Your task to perform on an android device: What's on my calendar tomorrow? Image 0: 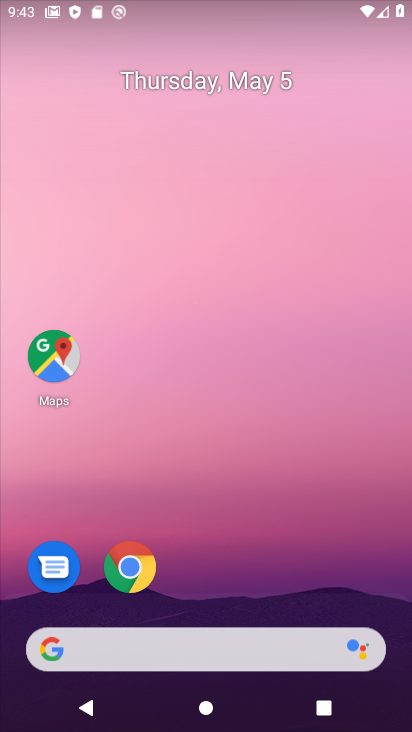
Step 0: drag from (271, 593) to (319, 65)
Your task to perform on an android device: What's on my calendar tomorrow? Image 1: 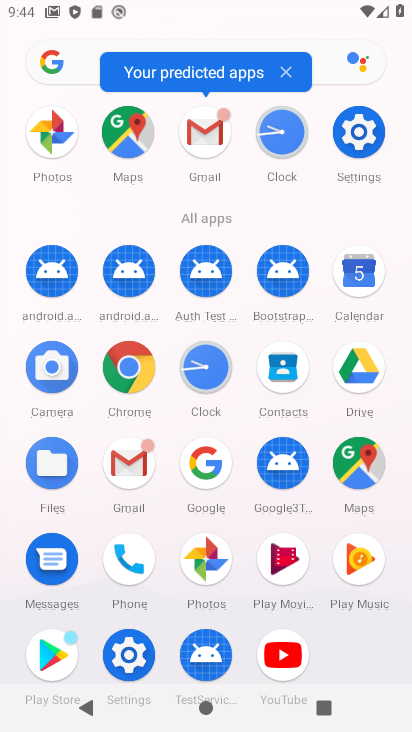
Step 1: click (361, 291)
Your task to perform on an android device: What's on my calendar tomorrow? Image 2: 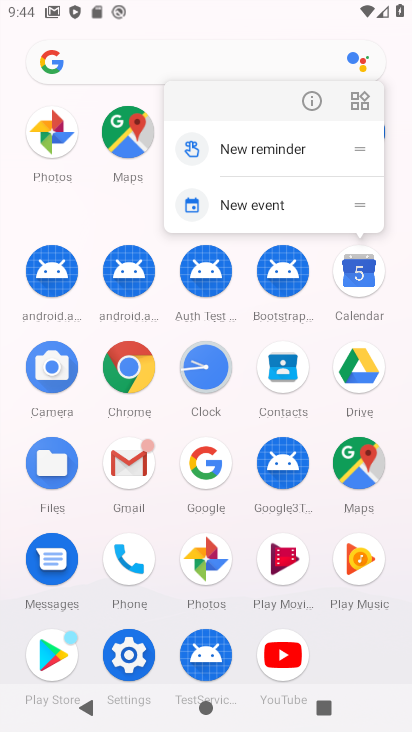
Step 2: click (366, 277)
Your task to perform on an android device: What's on my calendar tomorrow? Image 3: 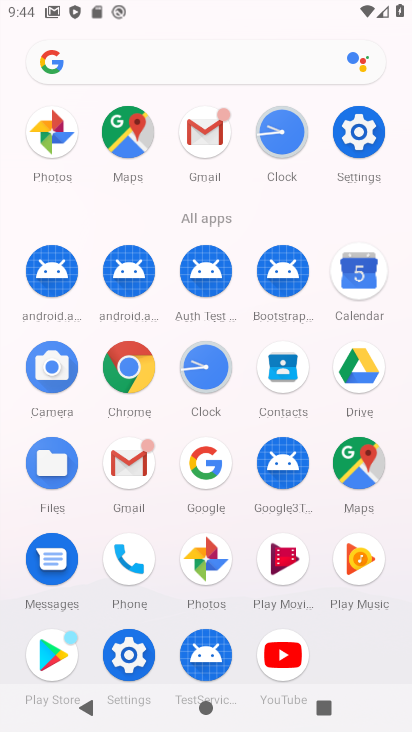
Step 3: click (366, 277)
Your task to perform on an android device: What's on my calendar tomorrow? Image 4: 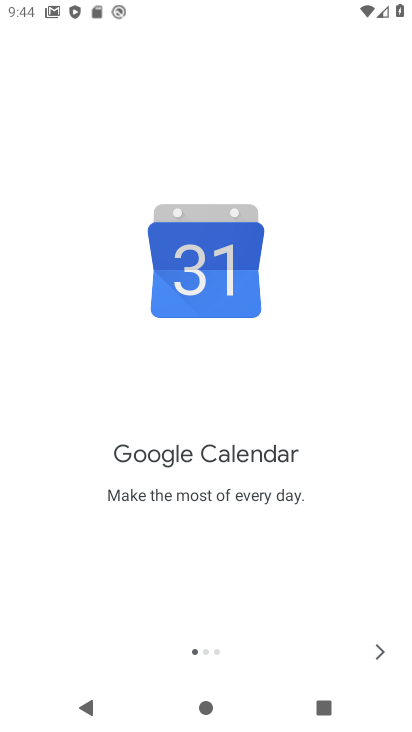
Step 4: click (379, 653)
Your task to perform on an android device: What's on my calendar tomorrow? Image 5: 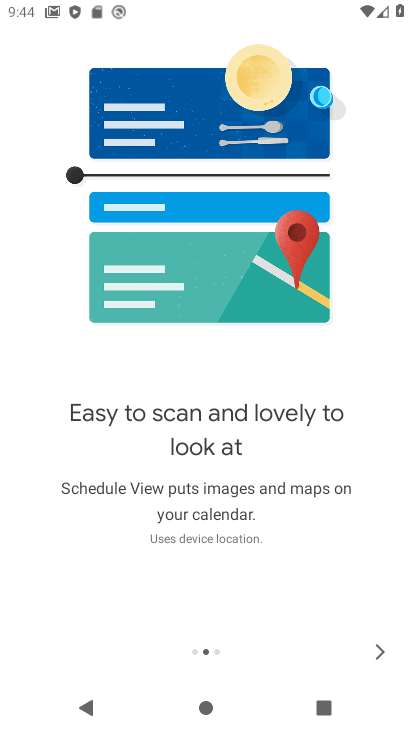
Step 5: click (379, 652)
Your task to perform on an android device: What's on my calendar tomorrow? Image 6: 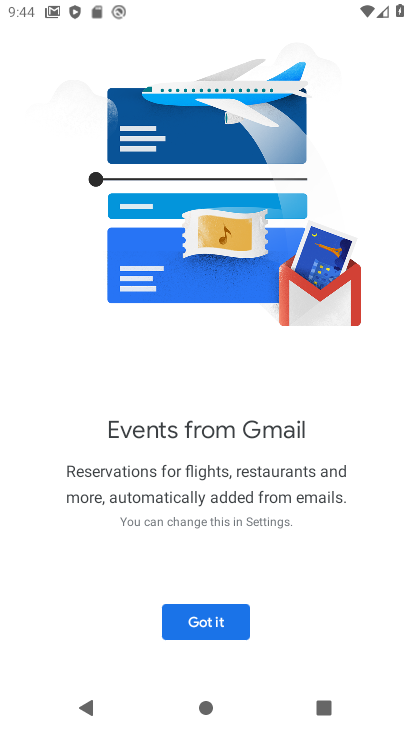
Step 6: click (213, 619)
Your task to perform on an android device: What's on my calendar tomorrow? Image 7: 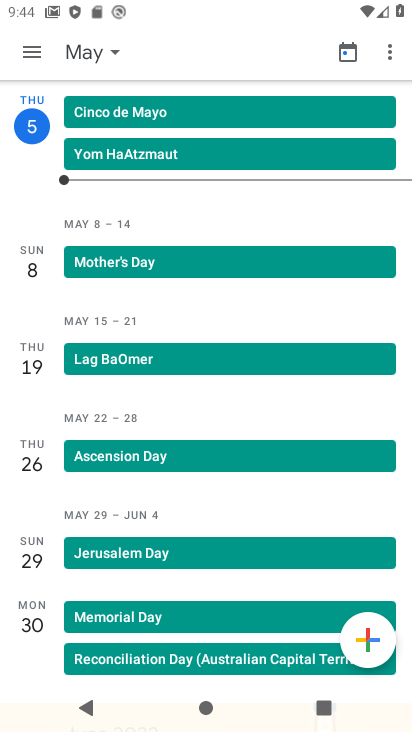
Step 7: click (93, 59)
Your task to perform on an android device: What's on my calendar tomorrow? Image 8: 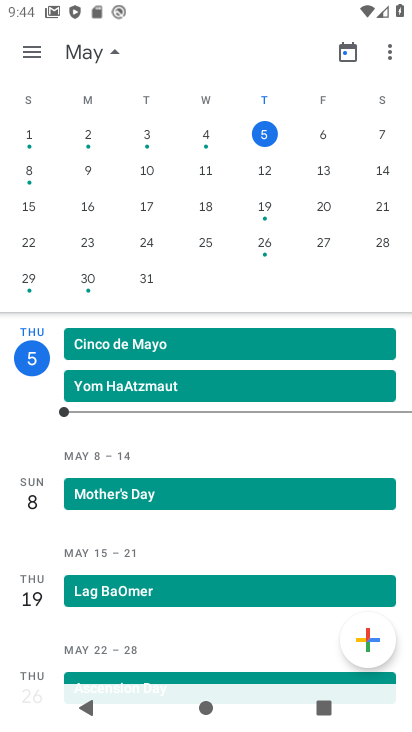
Step 8: click (320, 134)
Your task to perform on an android device: What's on my calendar tomorrow? Image 9: 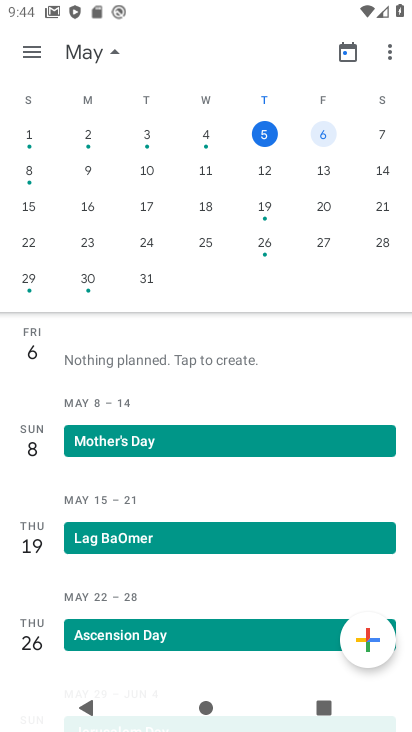
Step 9: click (320, 134)
Your task to perform on an android device: What's on my calendar tomorrow? Image 10: 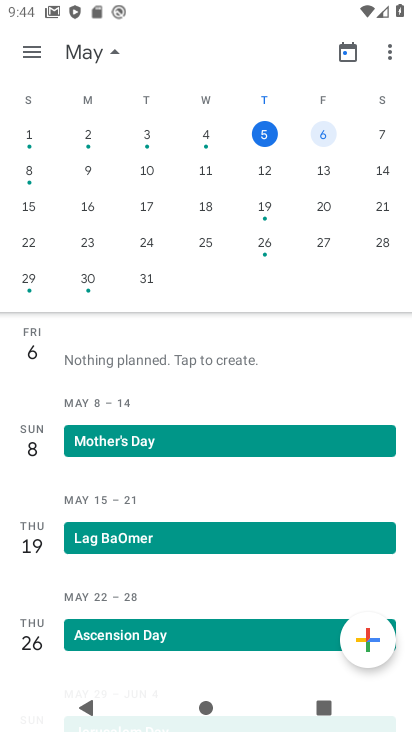
Step 10: click (320, 134)
Your task to perform on an android device: What's on my calendar tomorrow? Image 11: 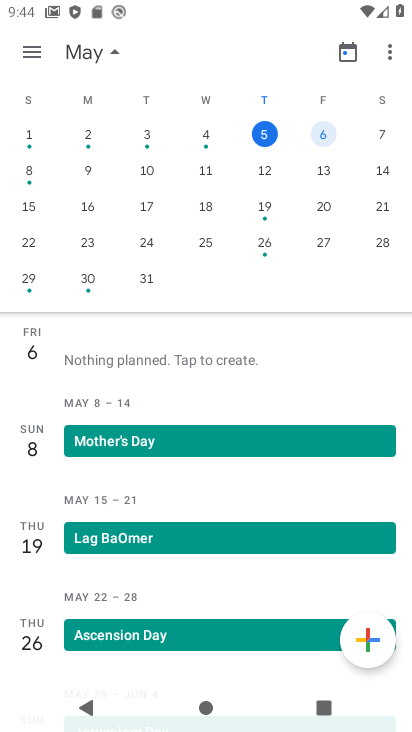
Step 11: click (320, 134)
Your task to perform on an android device: What's on my calendar tomorrow? Image 12: 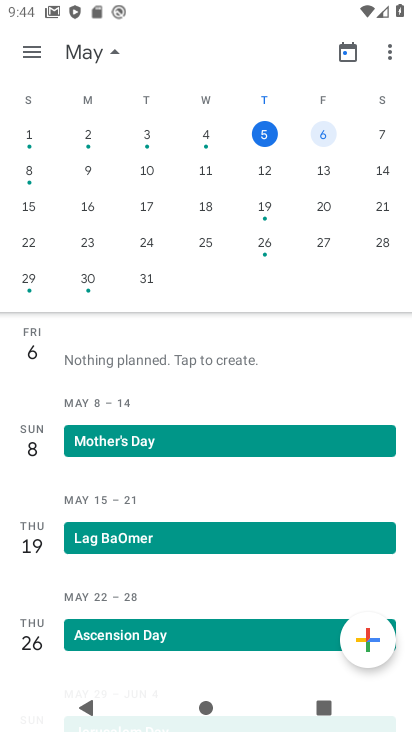
Step 12: click (320, 134)
Your task to perform on an android device: What's on my calendar tomorrow? Image 13: 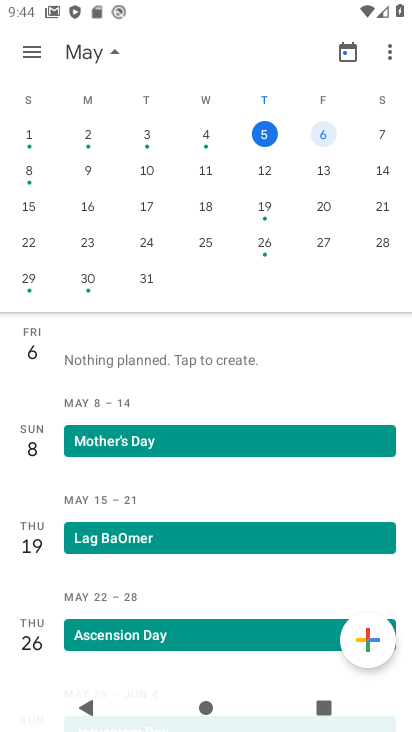
Step 13: click (327, 131)
Your task to perform on an android device: What's on my calendar tomorrow? Image 14: 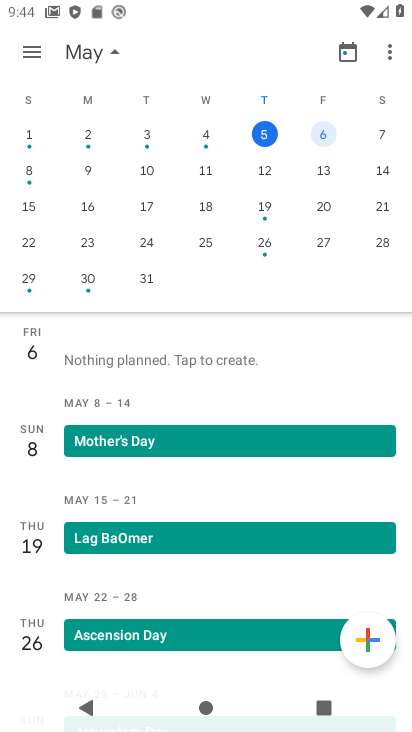
Step 14: click (328, 131)
Your task to perform on an android device: What's on my calendar tomorrow? Image 15: 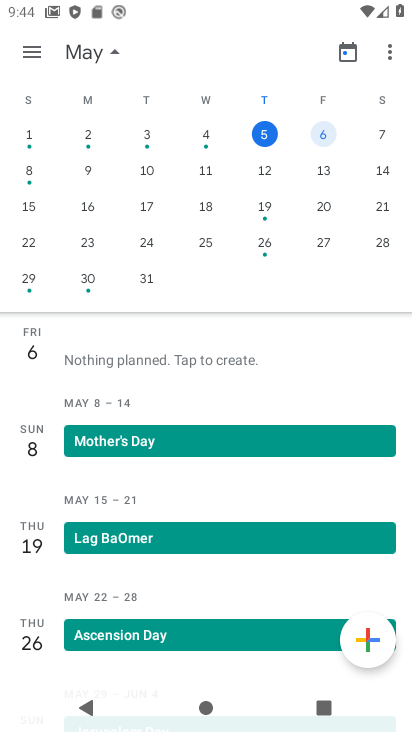
Step 15: click (328, 131)
Your task to perform on an android device: What's on my calendar tomorrow? Image 16: 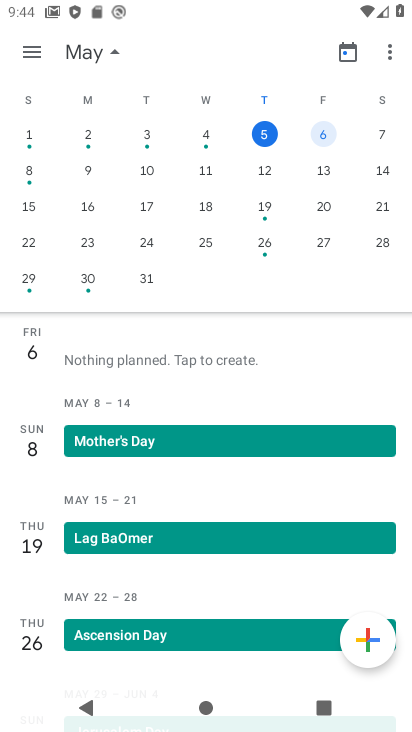
Step 16: click (315, 138)
Your task to perform on an android device: What's on my calendar tomorrow? Image 17: 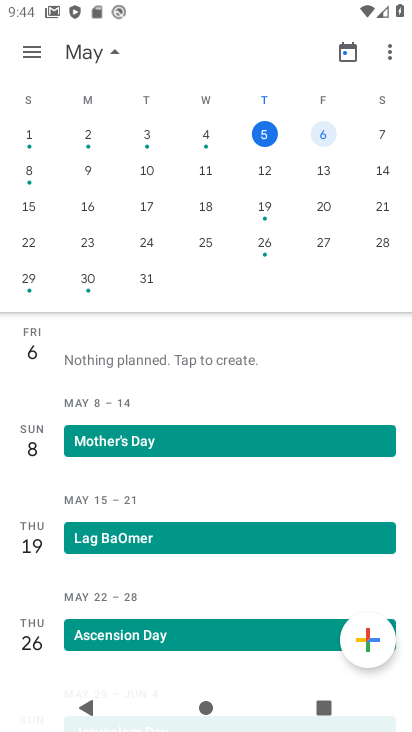
Step 17: click (315, 138)
Your task to perform on an android device: What's on my calendar tomorrow? Image 18: 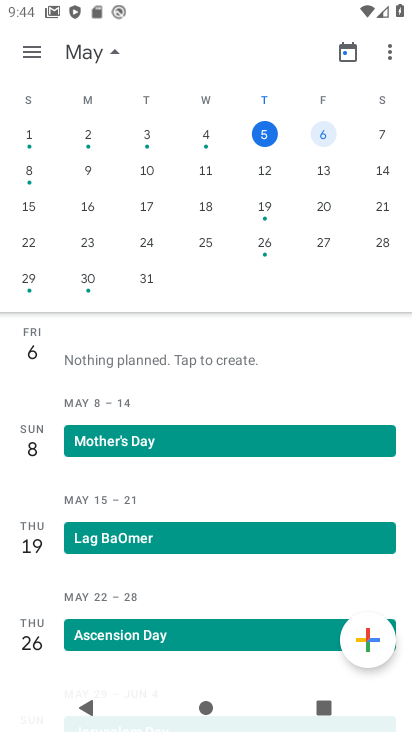
Step 18: click (318, 140)
Your task to perform on an android device: What's on my calendar tomorrow? Image 19: 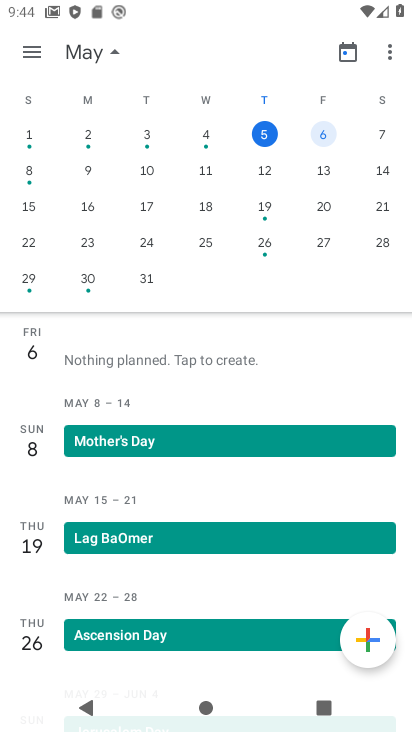
Step 19: click (318, 140)
Your task to perform on an android device: What's on my calendar tomorrow? Image 20: 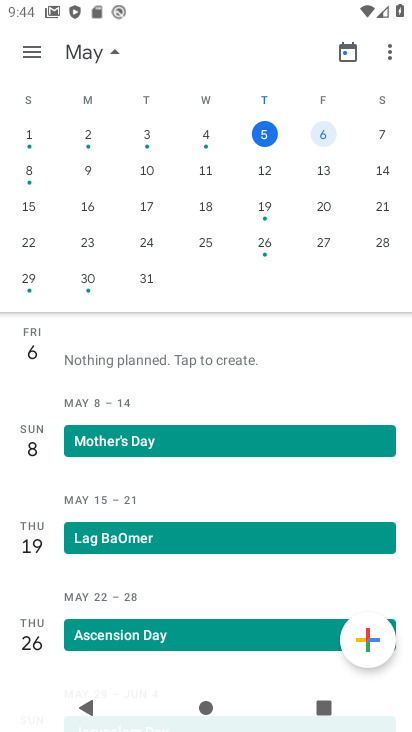
Step 20: click (318, 140)
Your task to perform on an android device: What's on my calendar tomorrow? Image 21: 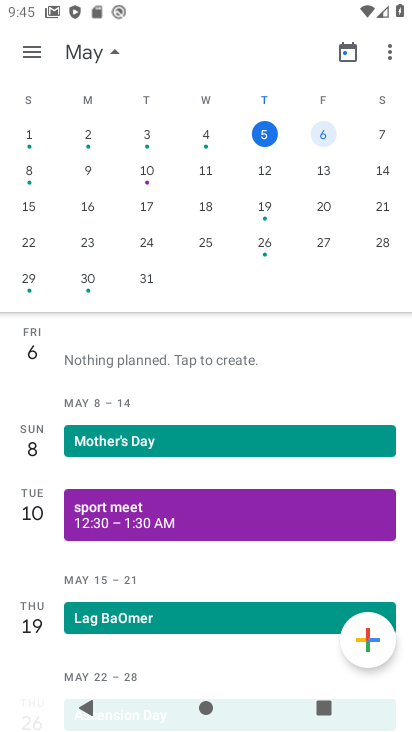
Step 21: click (318, 140)
Your task to perform on an android device: What's on my calendar tomorrow? Image 22: 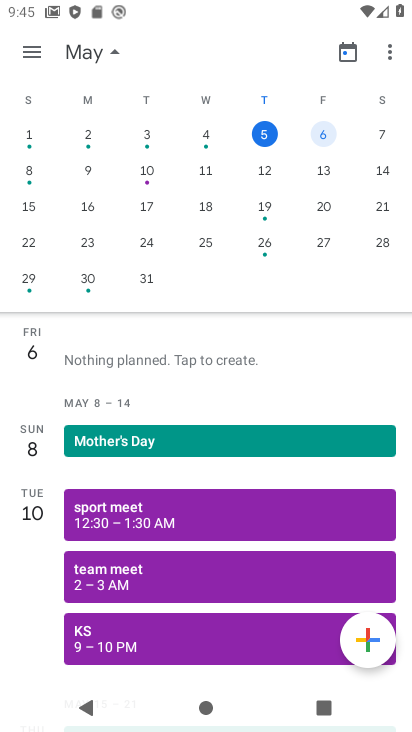
Step 22: click (318, 140)
Your task to perform on an android device: What's on my calendar tomorrow? Image 23: 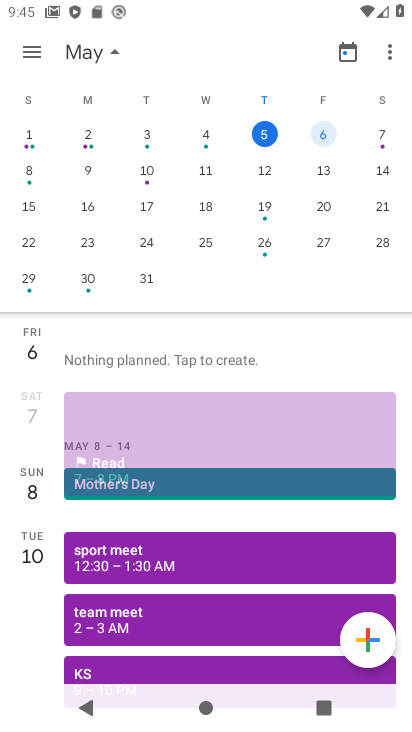
Step 23: task complete